Your task to perform on an android device: Turn off the flashlight Image 0: 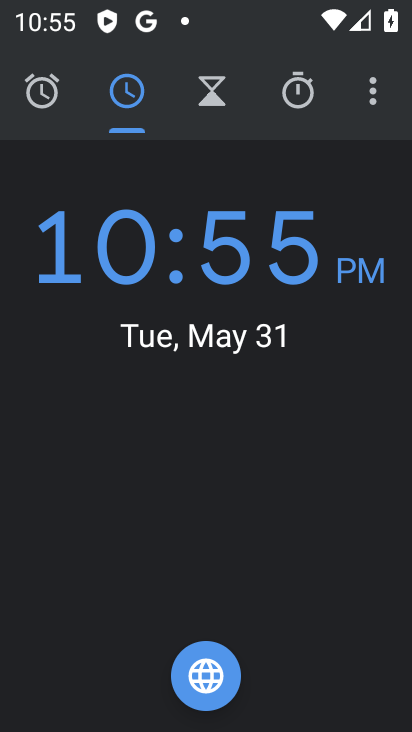
Step 0: press home button
Your task to perform on an android device: Turn off the flashlight Image 1: 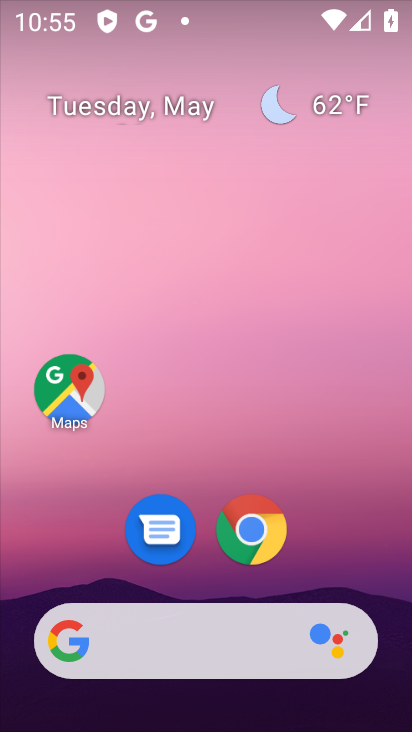
Step 1: drag from (198, 26) to (181, 642)
Your task to perform on an android device: Turn off the flashlight Image 2: 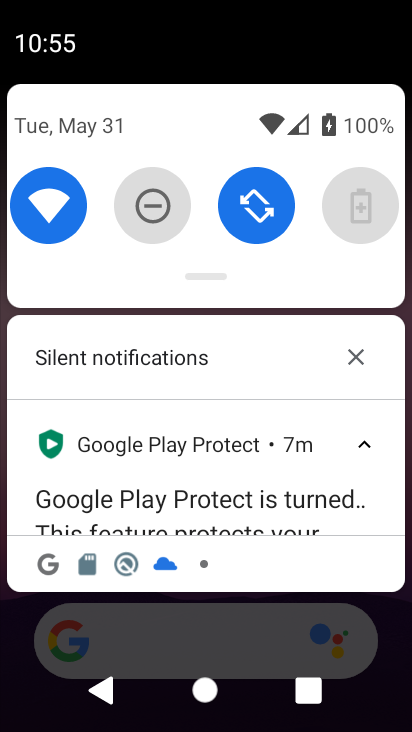
Step 2: drag from (209, 286) to (220, 703)
Your task to perform on an android device: Turn off the flashlight Image 3: 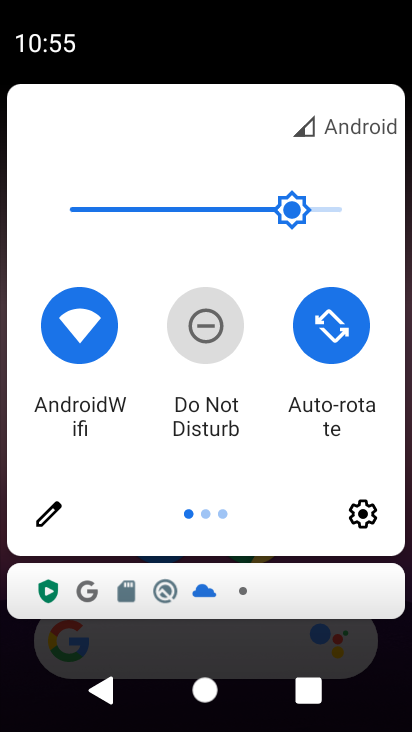
Step 3: click (51, 511)
Your task to perform on an android device: Turn off the flashlight Image 4: 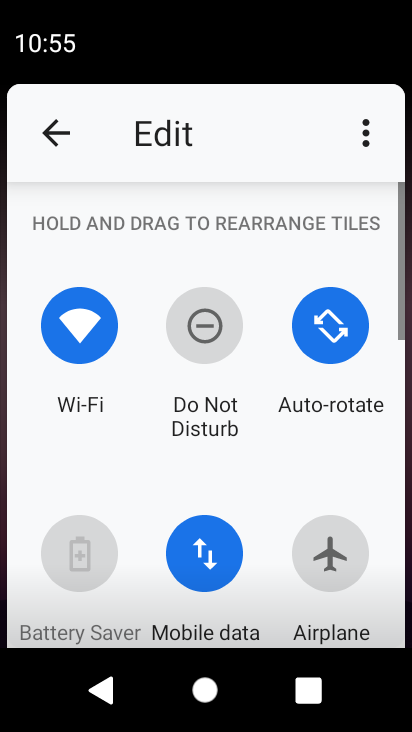
Step 4: task complete